Your task to perform on an android device: Search for Mexican restaurants on Maps Image 0: 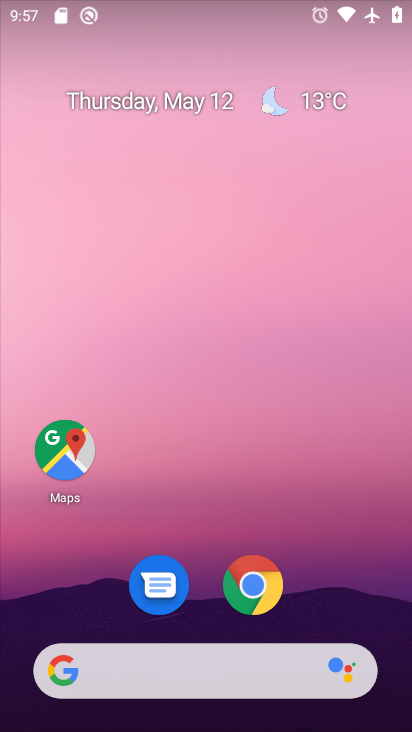
Step 0: click (77, 451)
Your task to perform on an android device: Search for Mexican restaurants on Maps Image 1: 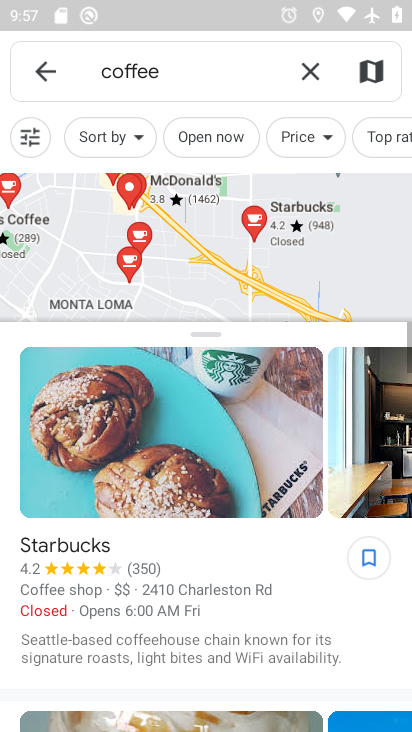
Step 1: click (311, 58)
Your task to perform on an android device: Search for Mexican restaurants on Maps Image 2: 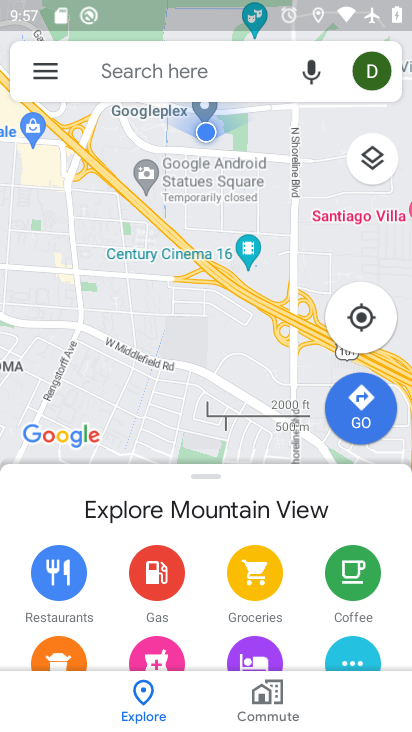
Step 2: click (199, 70)
Your task to perform on an android device: Search for Mexican restaurants on Maps Image 3: 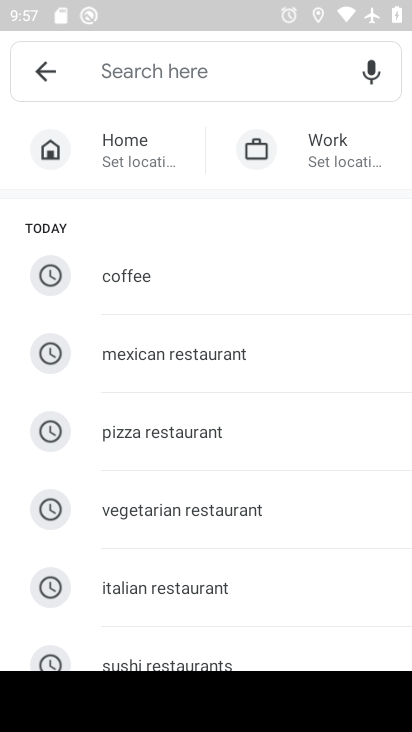
Step 3: click (159, 356)
Your task to perform on an android device: Search for Mexican restaurants on Maps Image 4: 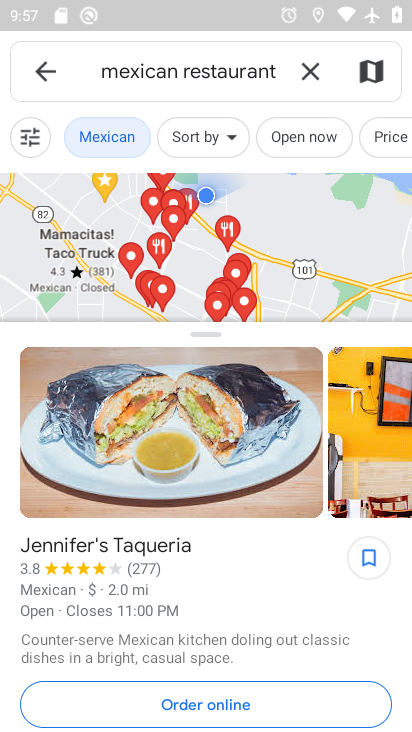
Step 4: task complete